Your task to perform on an android device: change alarm snooze length Image 0: 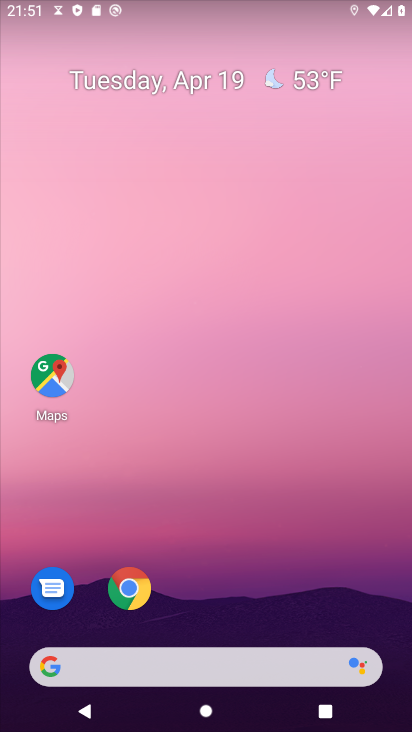
Step 0: drag from (203, 606) to (270, 38)
Your task to perform on an android device: change alarm snooze length Image 1: 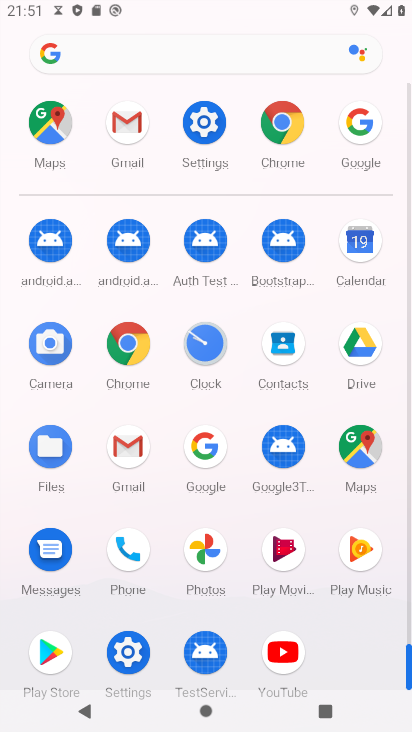
Step 1: click (206, 347)
Your task to perform on an android device: change alarm snooze length Image 2: 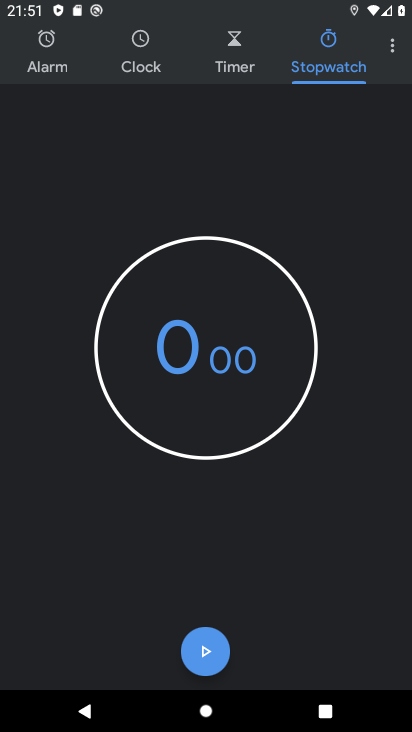
Step 2: click (396, 48)
Your task to perform on an android device: change alarm snooze length Image 3: 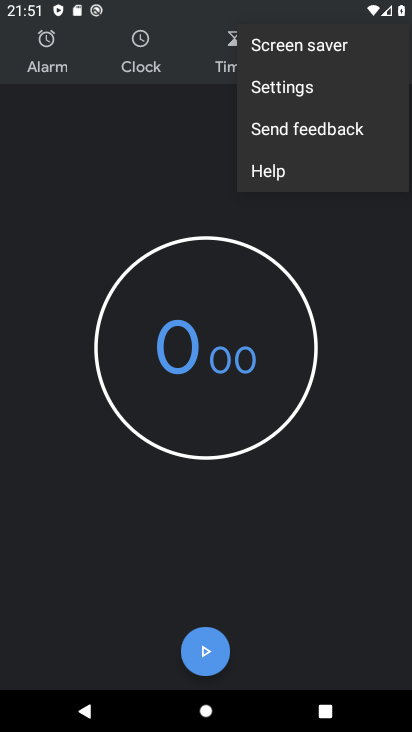
Step 3: click (319, 92)
Your task to perform on an android device: change alarm snooze length Image 4: 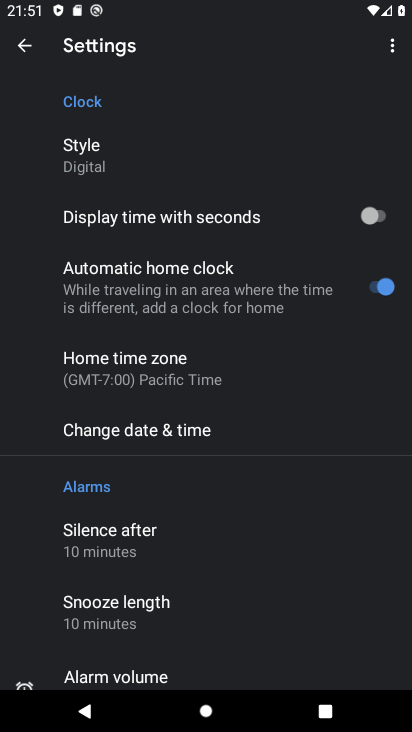
Step 4: click (148, 609)
Your task to perform on an android device: change alarm snooze length Image 5: 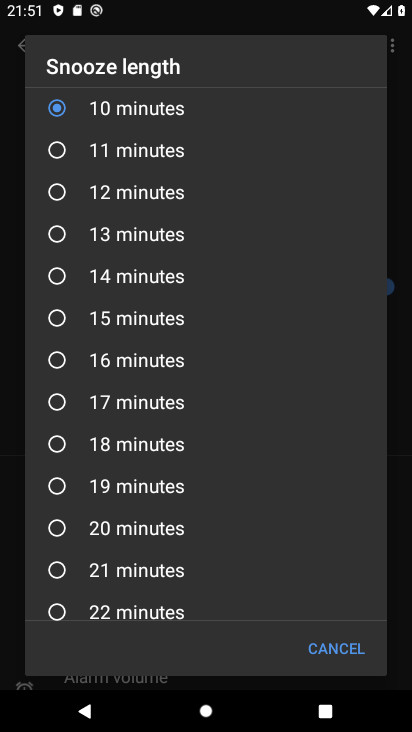
Step 5: click (59, 242)
Your task to perform on an android device: change alarm snooze length Image 6: 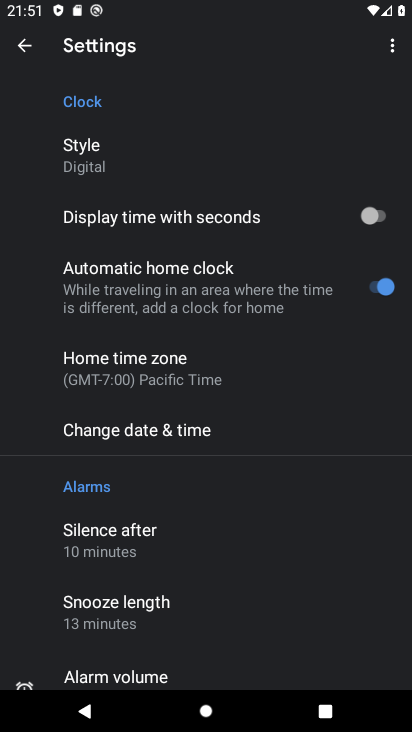
Step 6: task complete